Your task to perform on an android device: Is it going to rain today? Image 0: 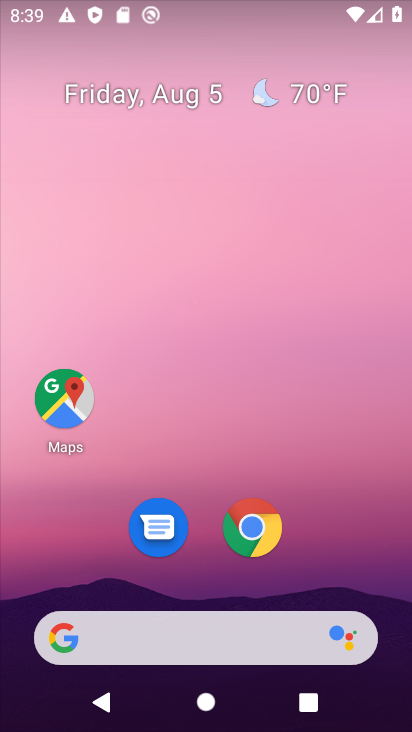
Step 0: drag from (233, 626) to (154, 9)
Your task to perform on an android device: Is it going to rain today? Image 1: 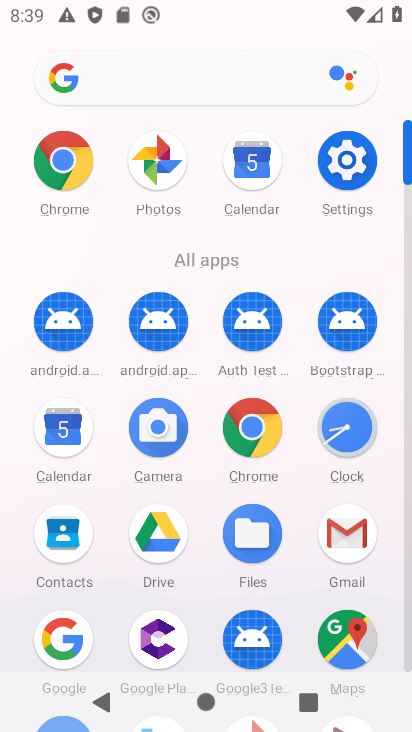
Step 1: click (54, 164)
Your task to perform on an android device: Is it going to rain today? Image 2: 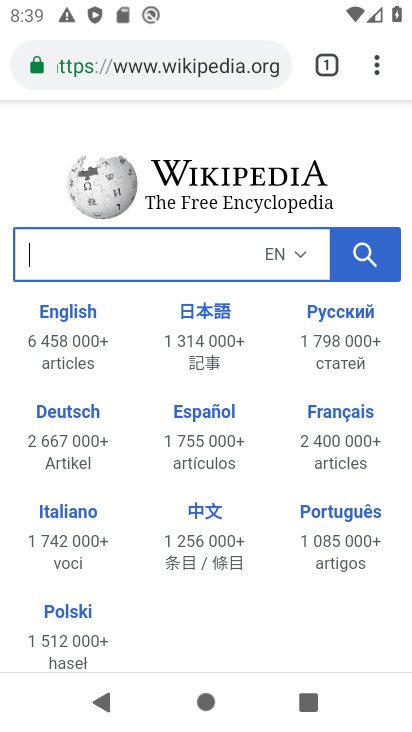
Step 2: click (219, 61)
Your task to perform on an android device: Is it going to rain today? Image 3: 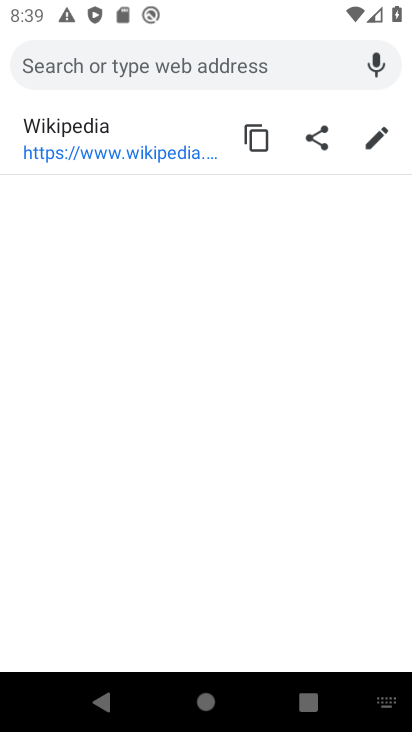
Step 3: type "weather today"
Your task to perform on an android device: Is it going to rain today? Image 4: 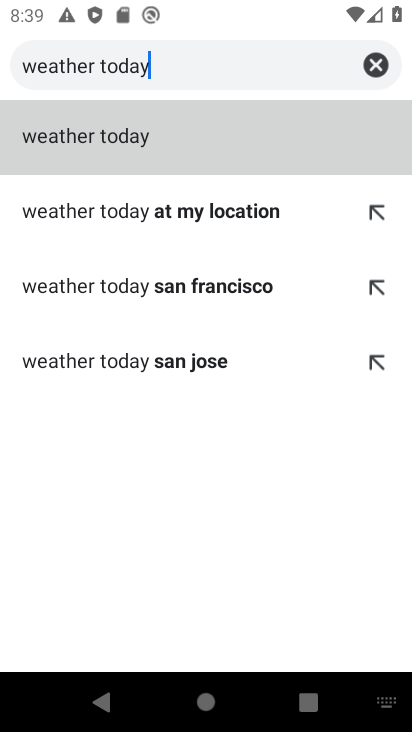
Step 4: click (123, 137)
Your task to perform on an android device: Is it going to rain today? Image 5: 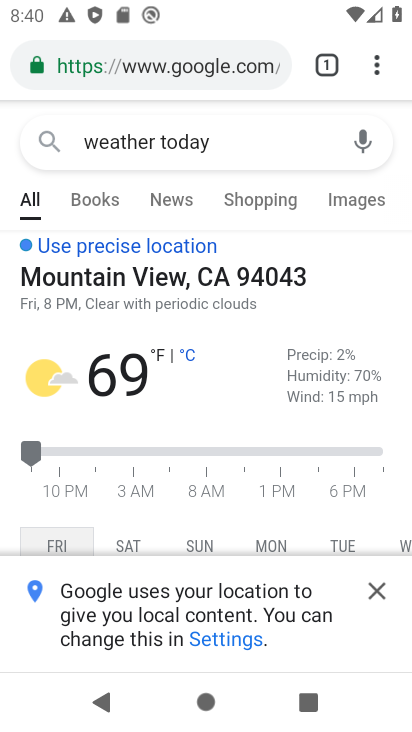
Step 5: task complete